Your task to perform on an android device: change the clock display to show seconds Image 0: 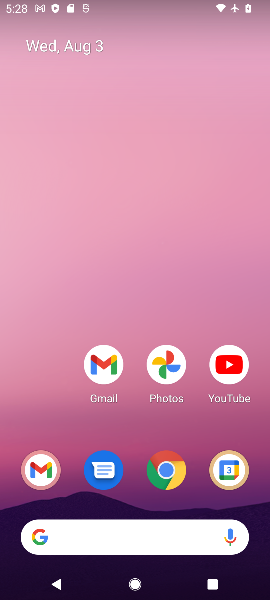
Step 0: drag from (55, 439) to (148, 83)
Your task to perform on an android device: change the clock display to show seconds Image 1: 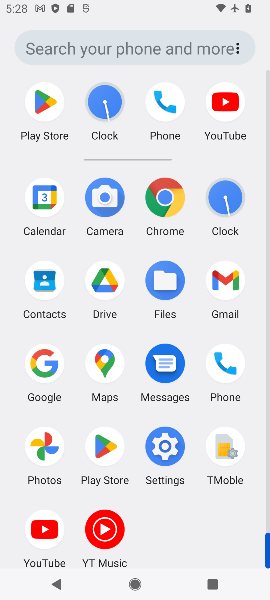
Step 1: click (224, 199)
Your task to perform on an android device: change the clock display to show seconds Image 2: 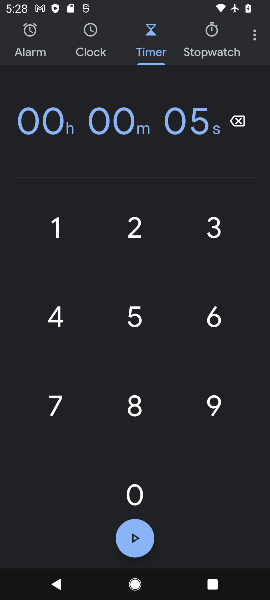
Step 2: click (253, 34)
Your task to perform on an android device: change the clock display to show seconds Image 3: 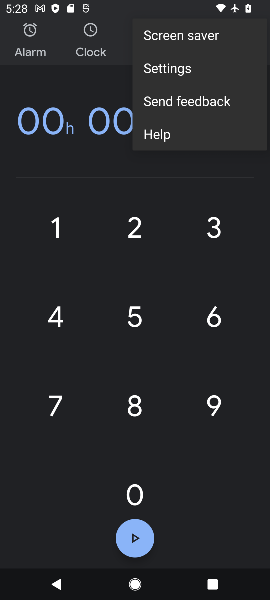
Step 3: click (172, 60)
Your task to perform on an android device: change the clock display to show seconds Image 4: 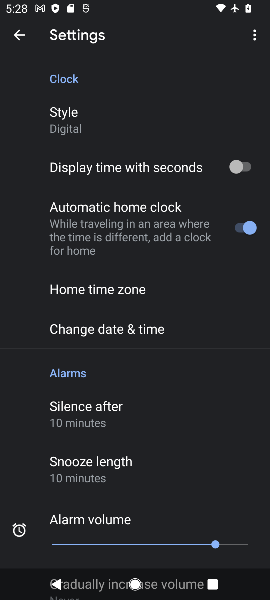
Step 4: click (238, 169)
Your task to perform on an android device: change the clock display to show seconds Image 5: 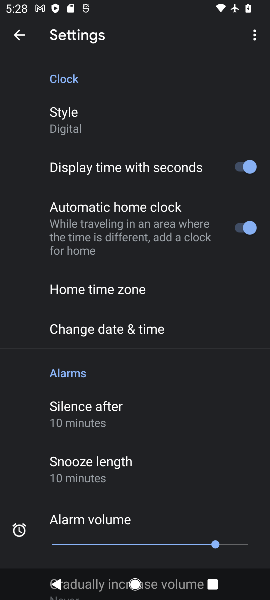
Step 5: task complete